Your task to perform on an android device: turn off location Image 0: 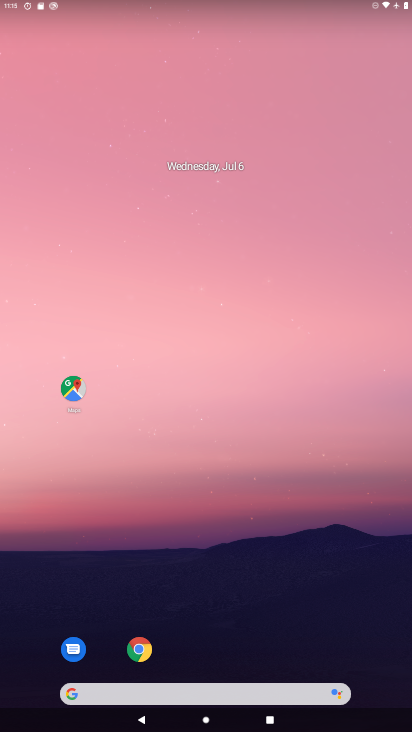
Step 0: drag from (373, 659) to (370, 78)
Your task to perform on an android device: turn off location Image 1: 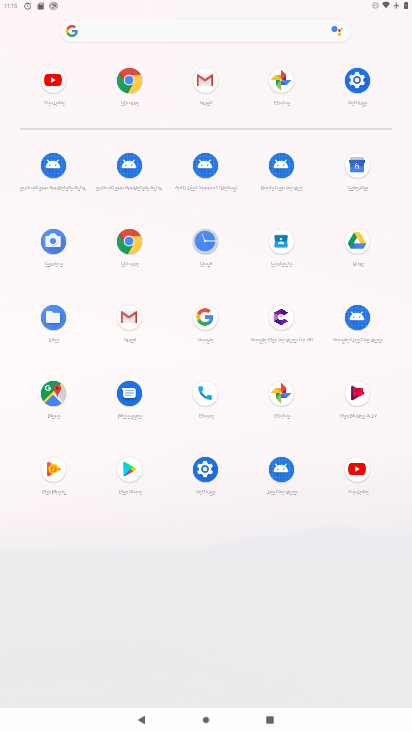
Step 1: click (354, 76)
Your task to perform on an android device: turn off location Image 2: 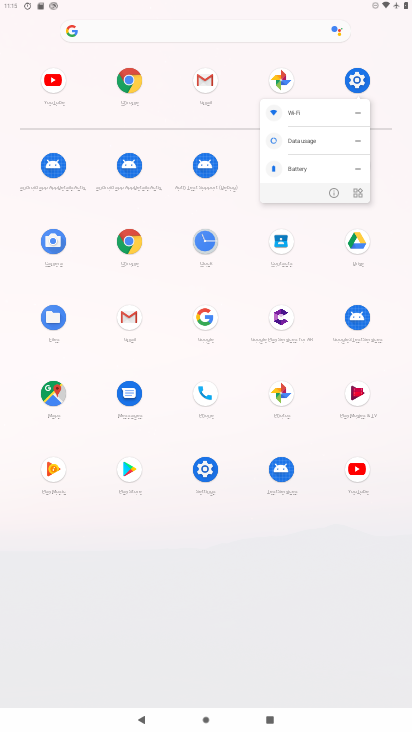
Step 2: click (356, 80)
Your task to perform on an android device: turn off location Image 3: 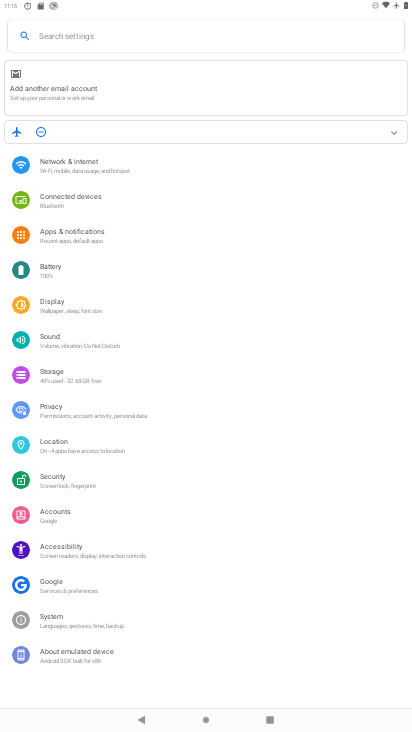
Step 3: click (68, 442)
Your task to perform on an android device: turn off location Image 4: 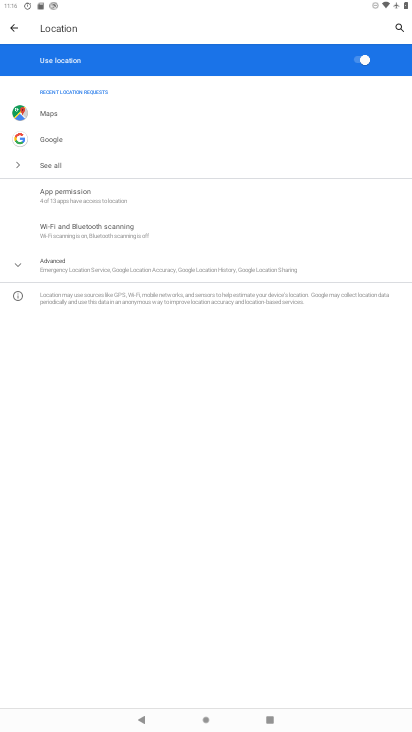
Step 4: click (360, 62)
Your task to perform on an android device: turn off location Image 5: 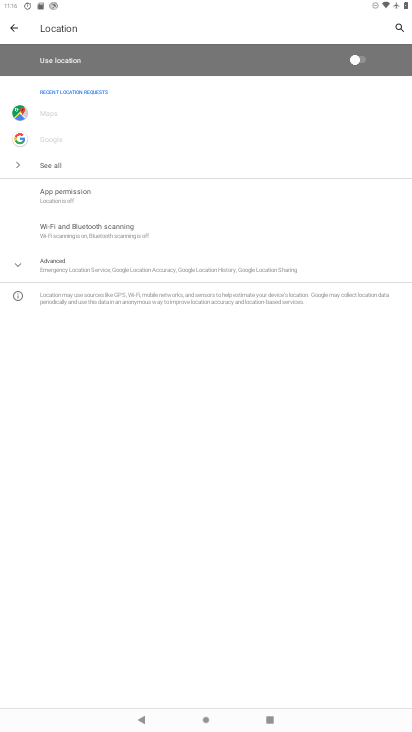
Step 5: task complete